Your task to perform on an android device: Add macbook pro to the cart on walmart Image 0: 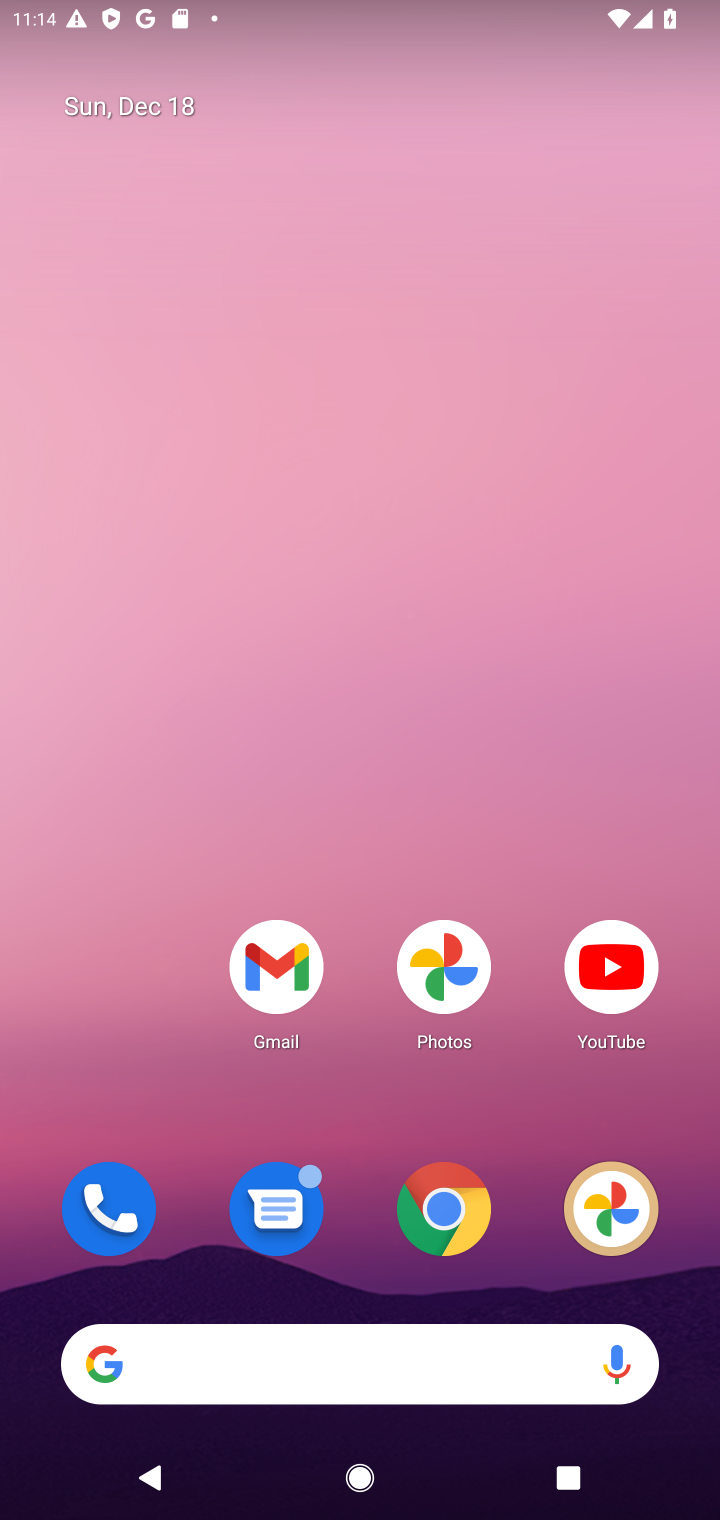
Step 0: click (460, 1249)
Your task to perform on an android device: Add macbook pro to the cart on walmart Image 1: 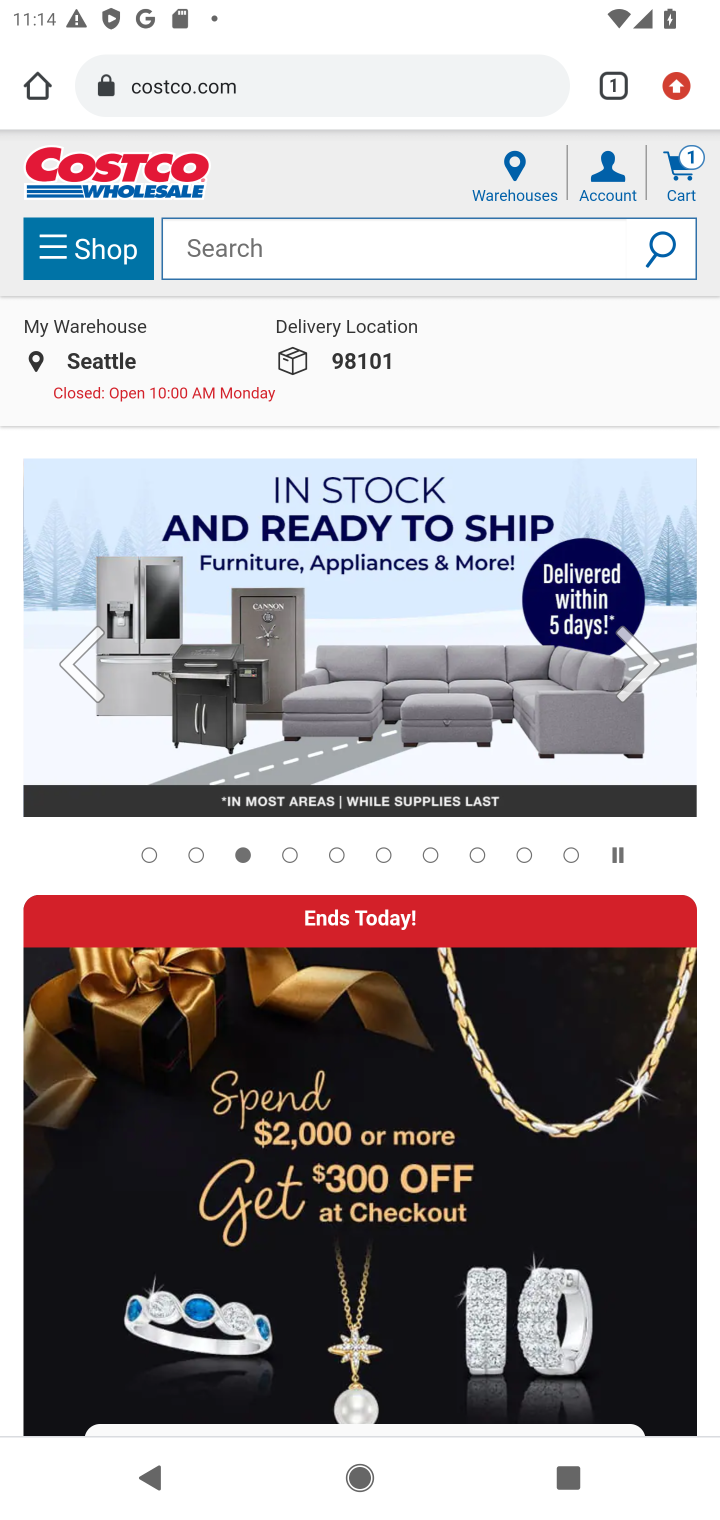
Step 1: click (258, 253)
Your task to perform on an android device: Add macbook pro to the cart on walmart Image 2: 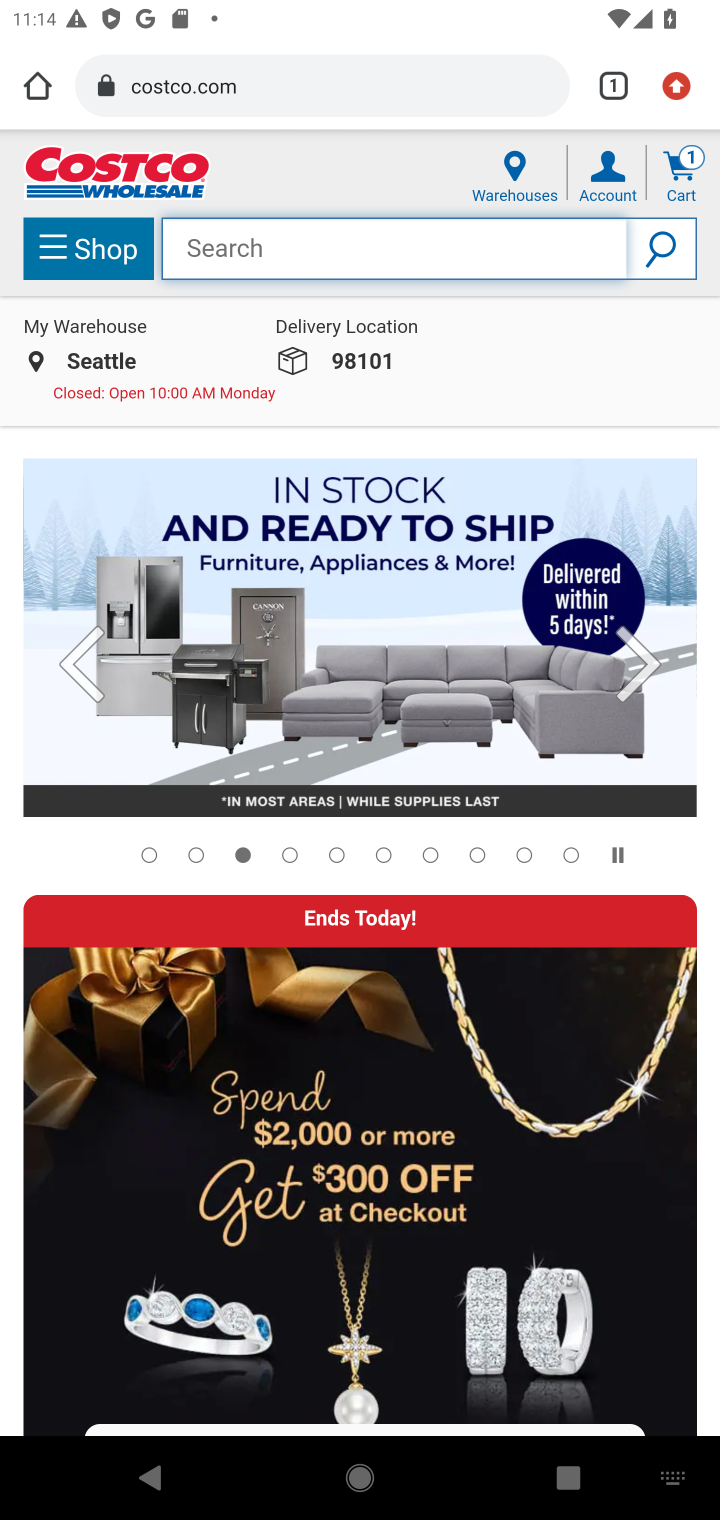
Step 2: click (262, 105)
Your task to perform on an android device: Add macbook pro to the cart on walmart Image 3: 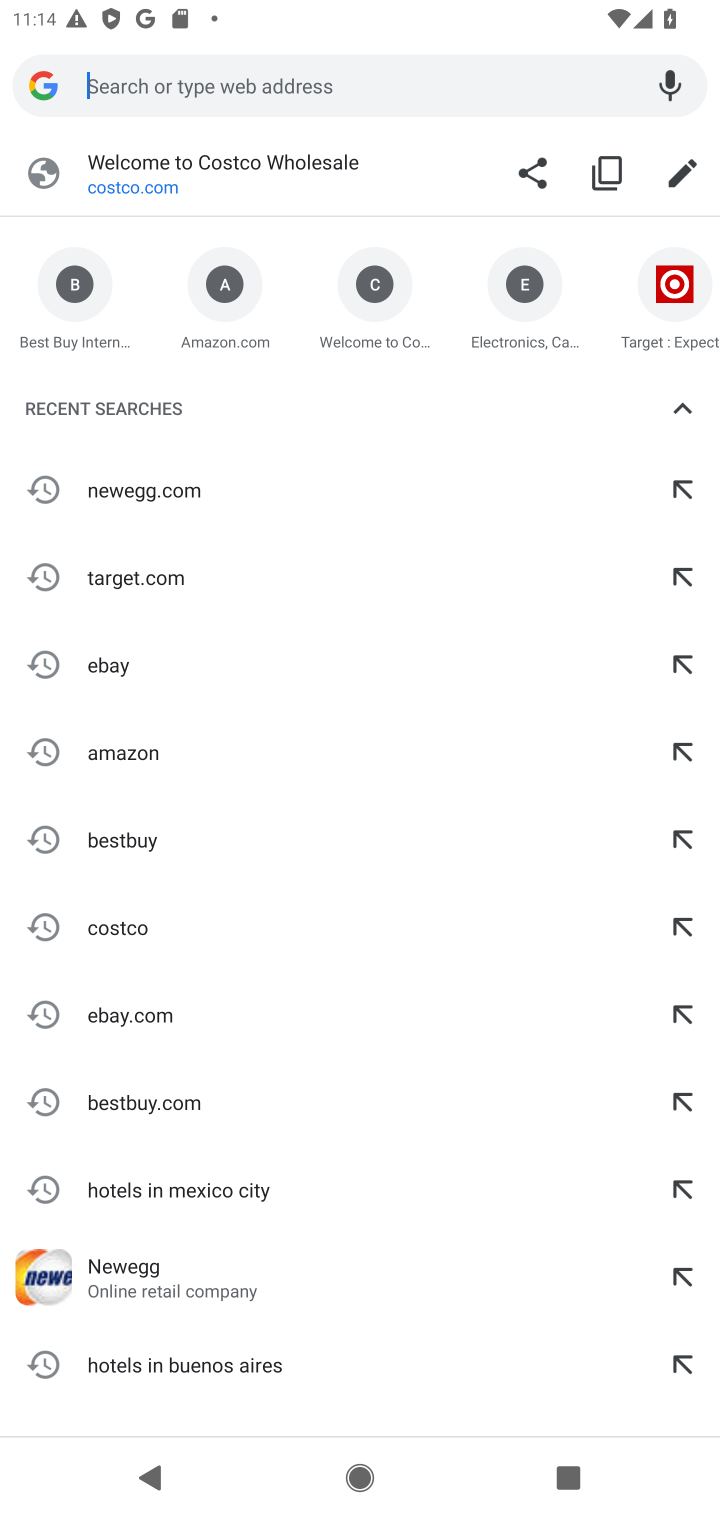
Step 3: type "WALMART"
Your task to perform on an android device: Add macbook pro to the cart on walmart Image 4: 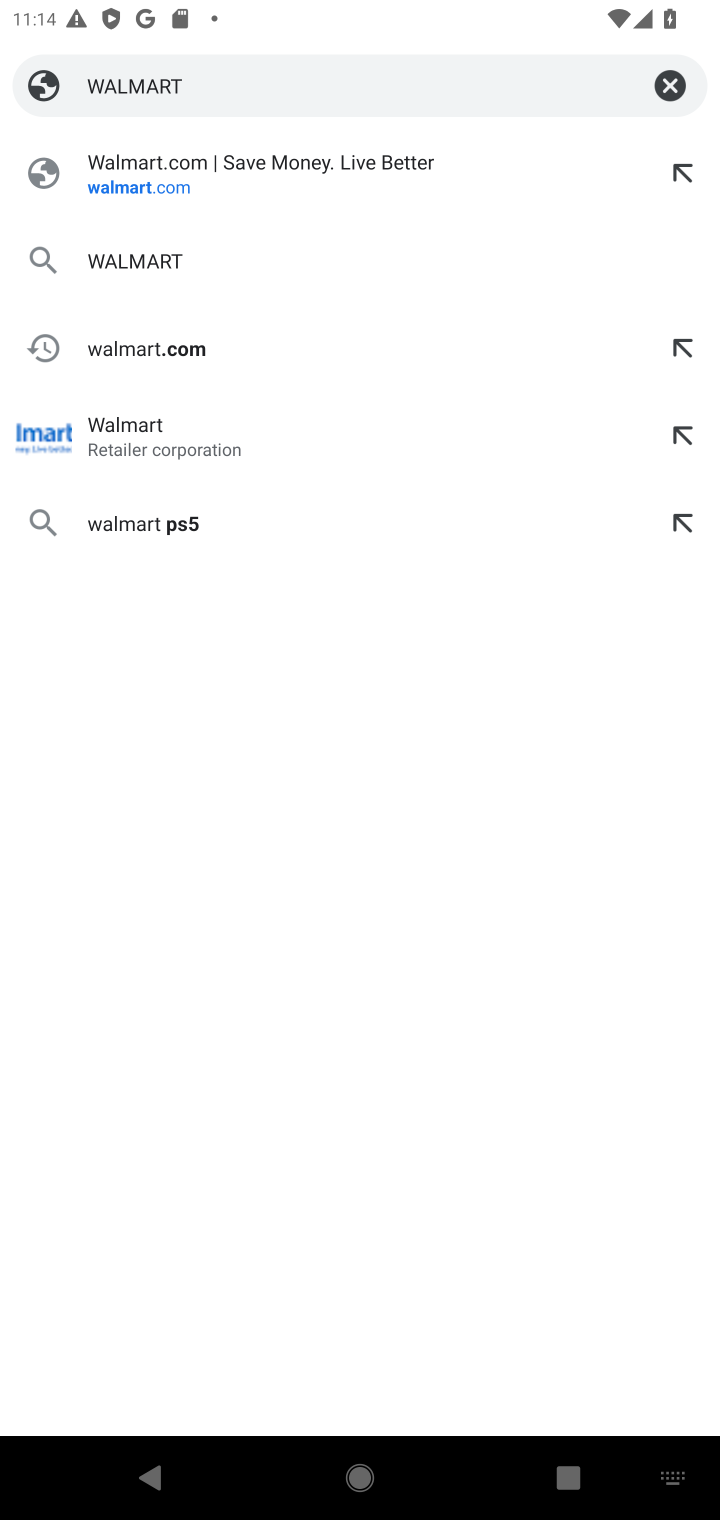
Step 4: click (146, 178)
Your task to perform on an android device: Add macbook pro to the cart on walmart Image 5: 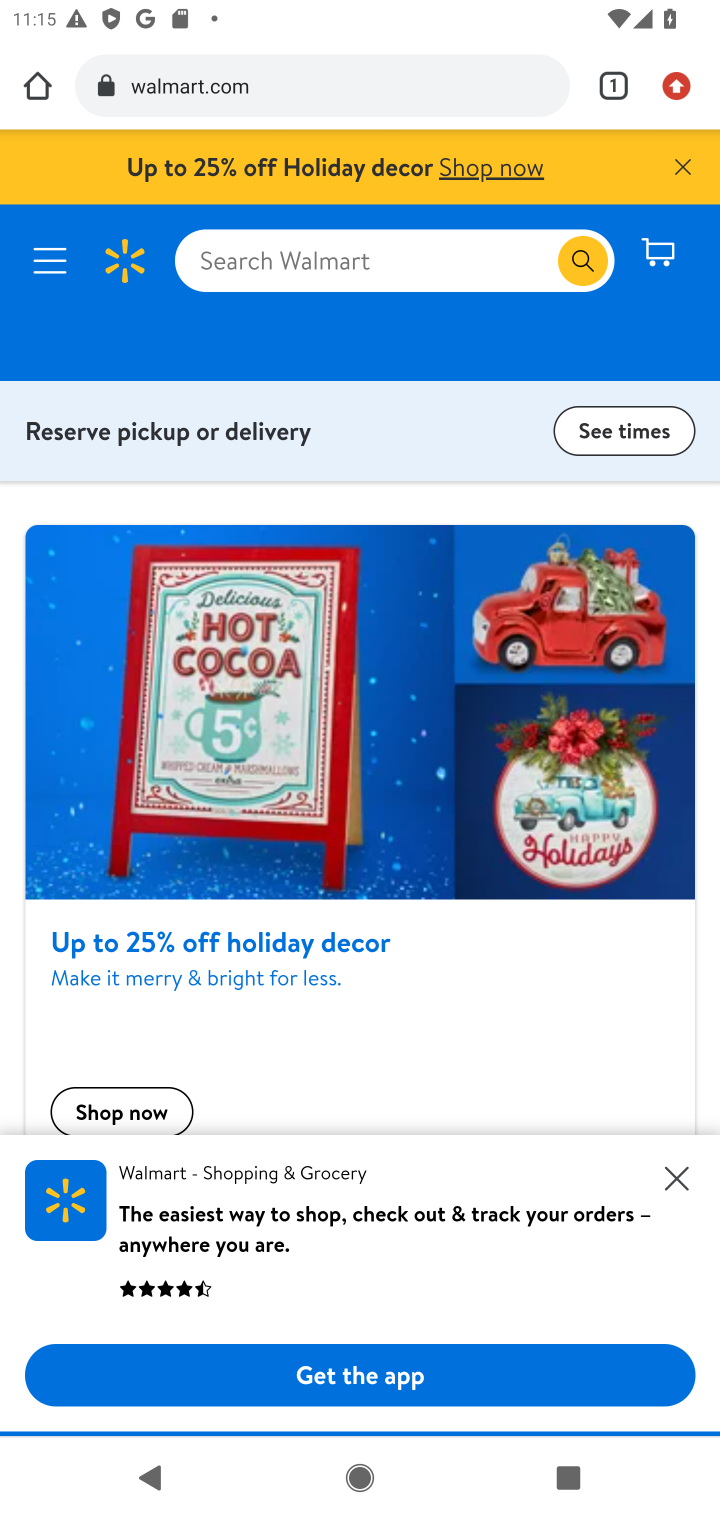
Step 5: click (383, 265)
Your task to perform on an android device: Add macbook pro to the cart on walmart Image 6: 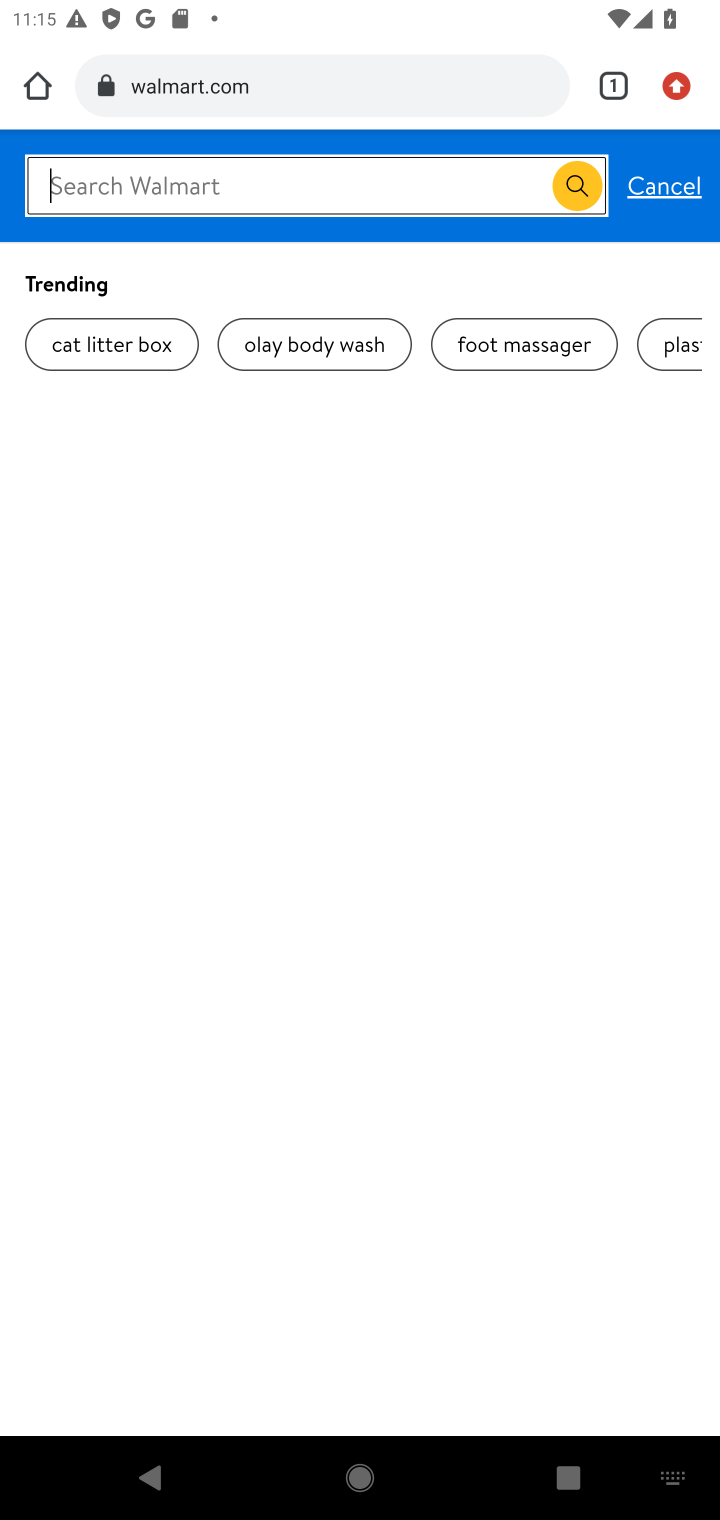
Step 6: type "MACBOOK PRO"
Your task to perform on an android device: Add macbook pro to the cart on walmart Image 7: 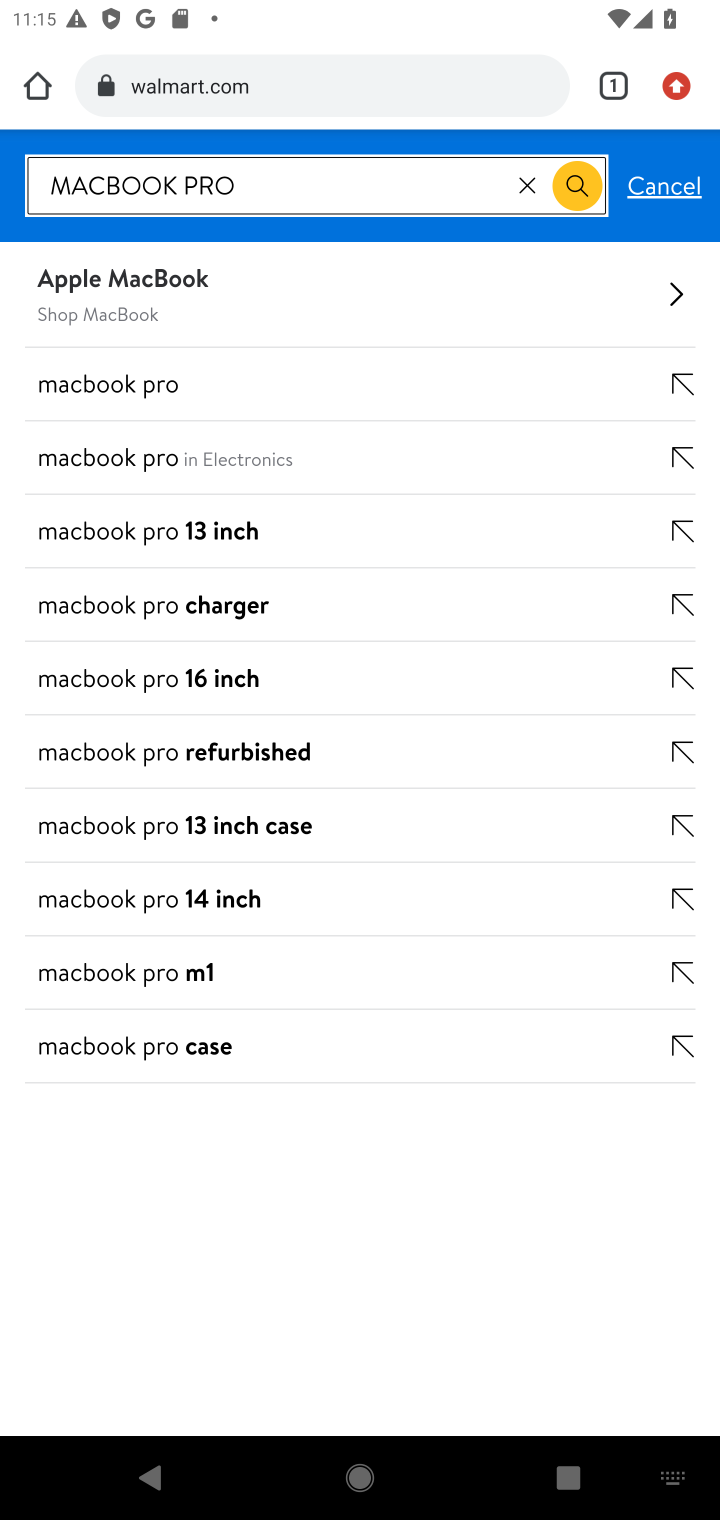
Step 7: click (195, 283)
Your task to perform on an android device: Add macbook pro to the cart on walmart Image 8: 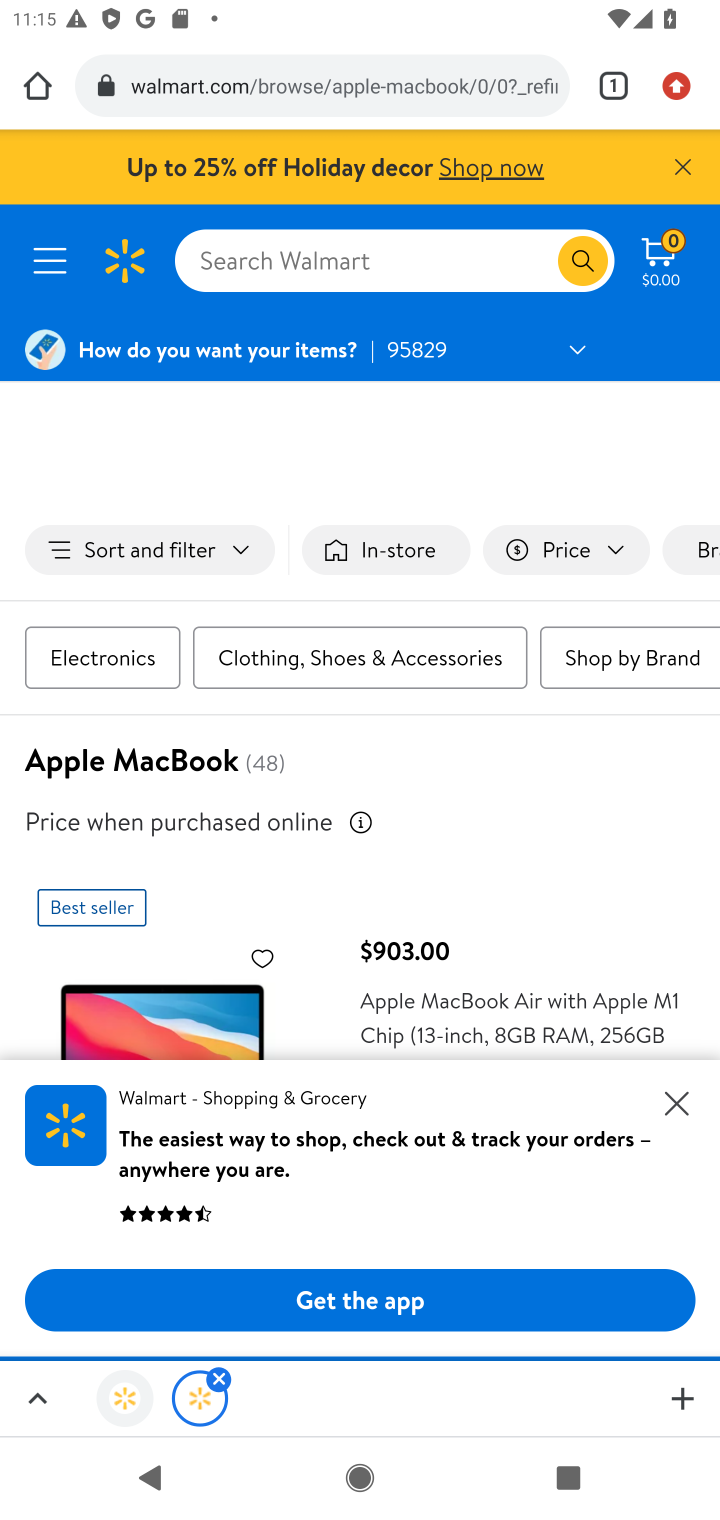
Step 8: drag from (508, 986) to (439, 216)
Your task to perform on an android device: Add macbook pro to the cart on walmart Image 9: 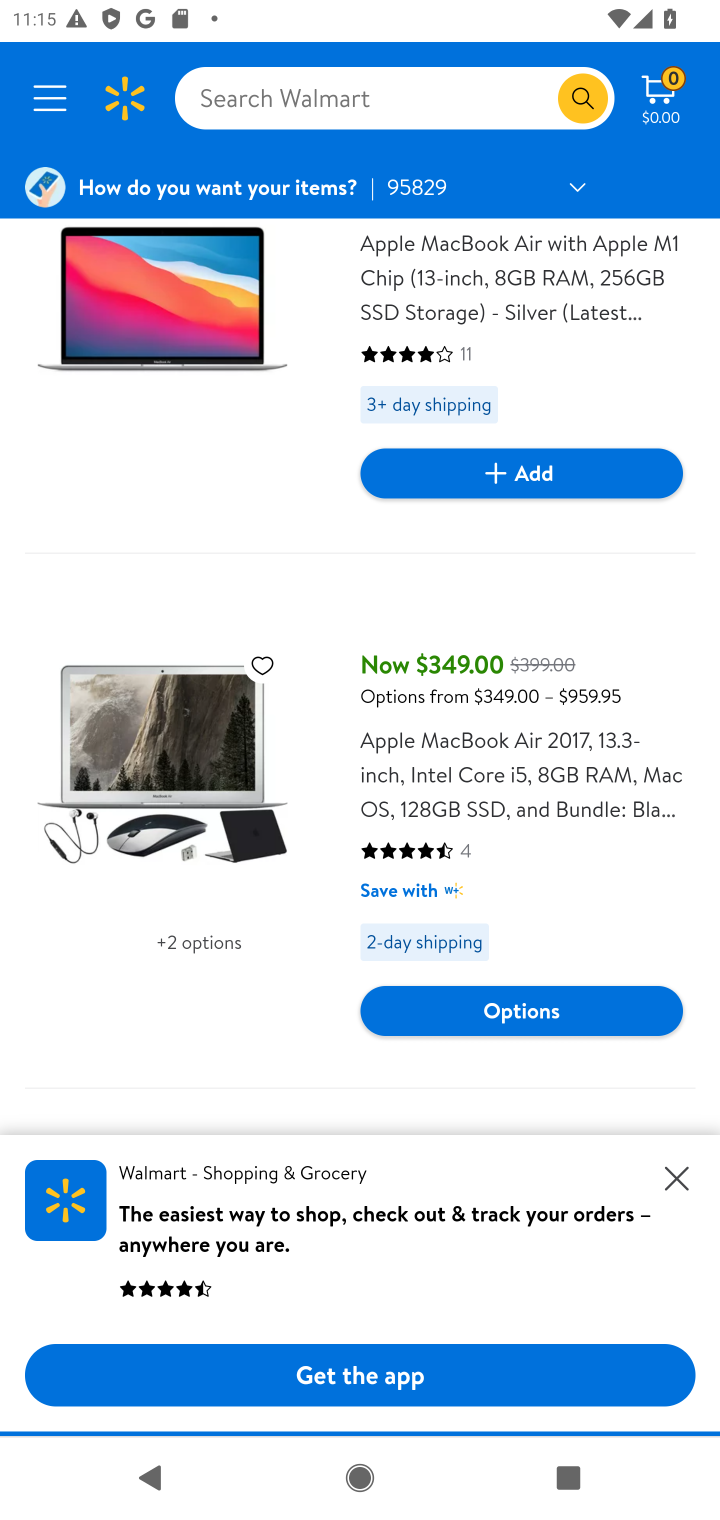
Step 9: click (492, 488)
Your task to perform on an android device: Add macbook pro to the cart on walmart Image 10: 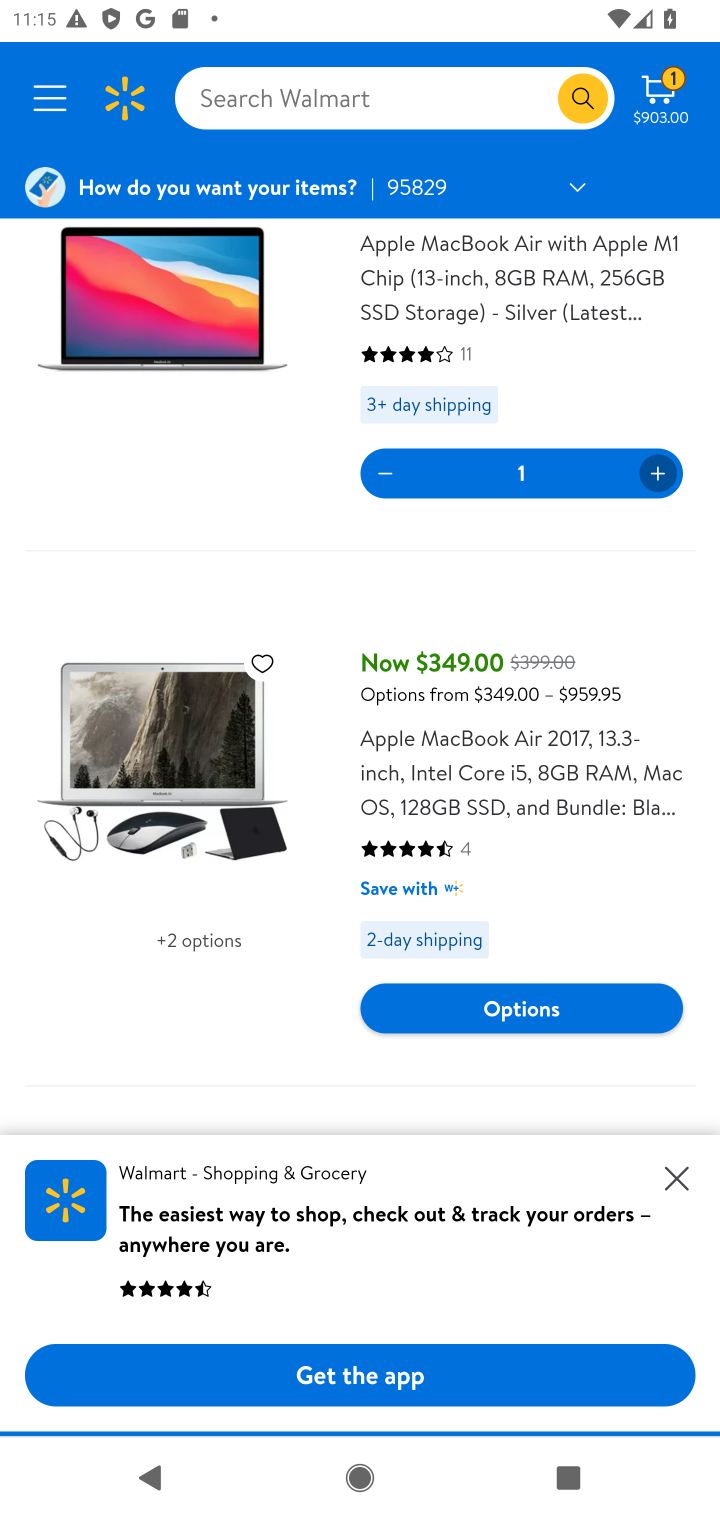
Step 10: click (517, 487)
Your task to perform on an android device: Add macbook pro to the cart on walmart Image 11: 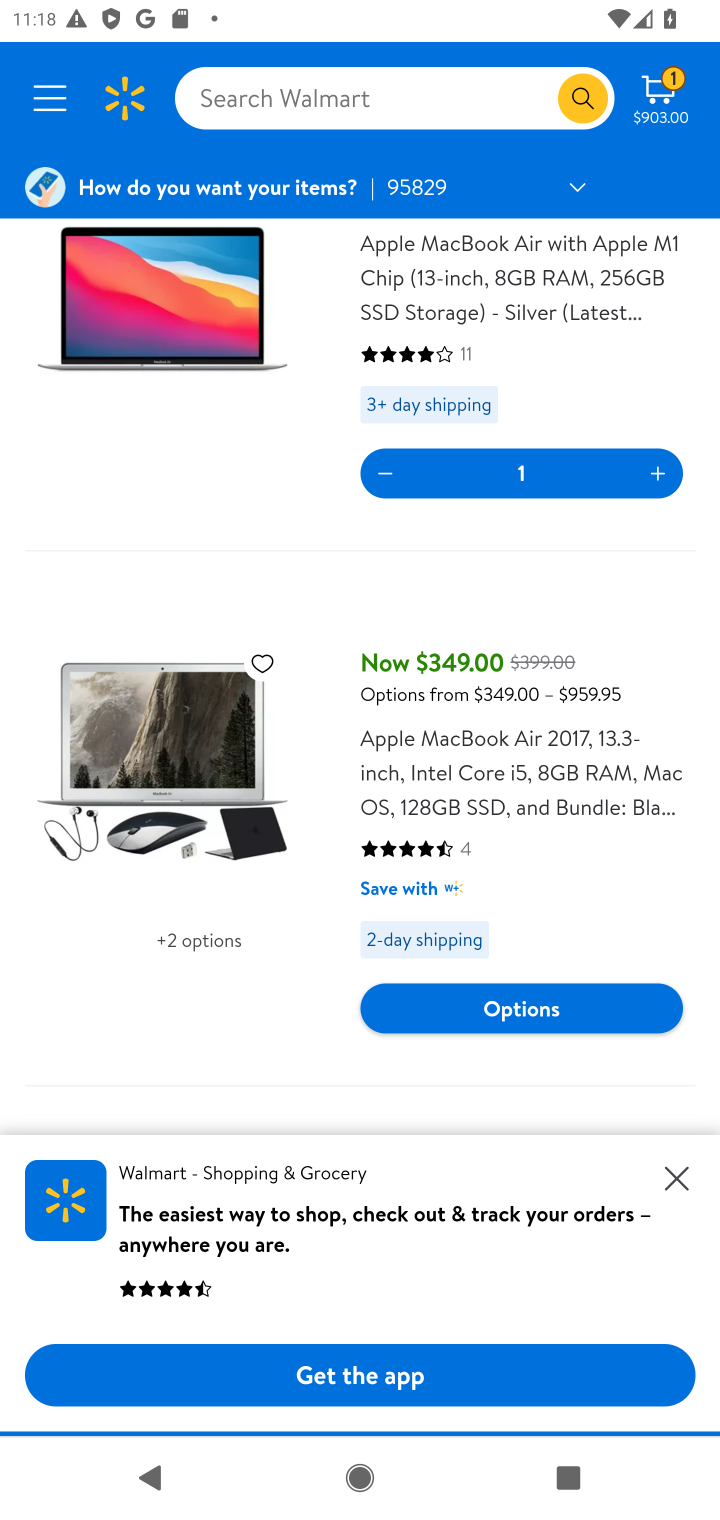
Step 11: task complete